Your task to perform on an android device: turn smart compose on in the gmail app Image 0: 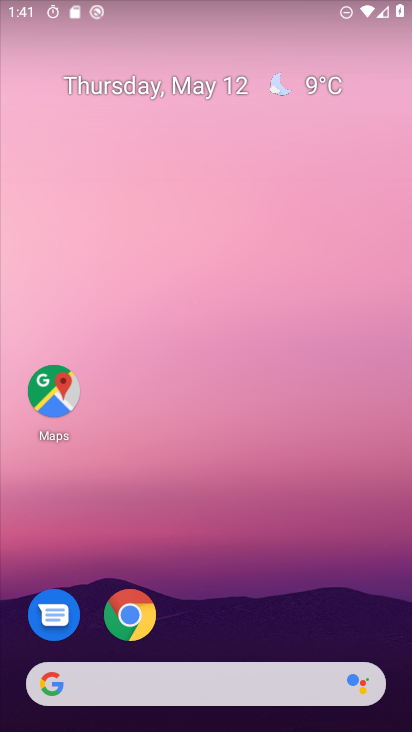
Step 0: drag from (244, 581) to (242, 163)
Your task to perform on an android device: turn smart compose on in the gmail app Image 1: 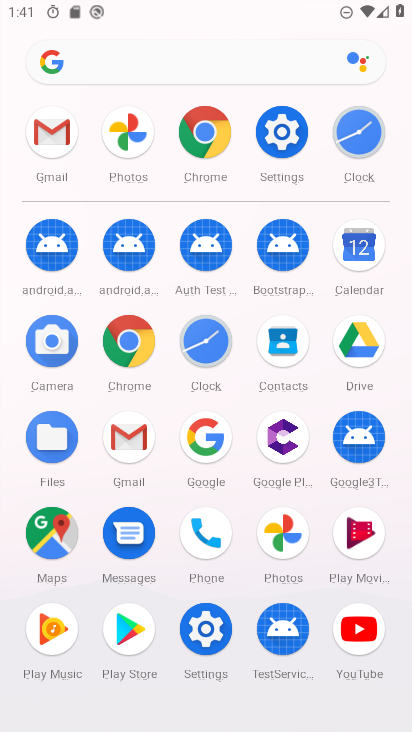
Step 1: click (61, 125)
Your task to perform on an android device: turn smart compose on in the gmail app Image 2: 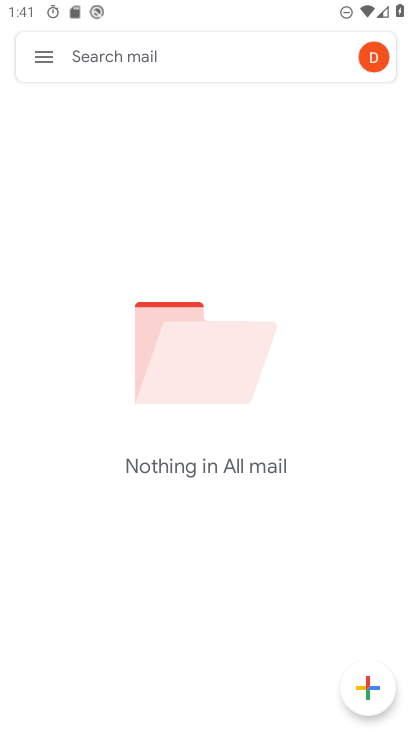
Step 2: click (43, 58)
Your task to perform on an android device: turn smart compose on in the gmail app Image 3: 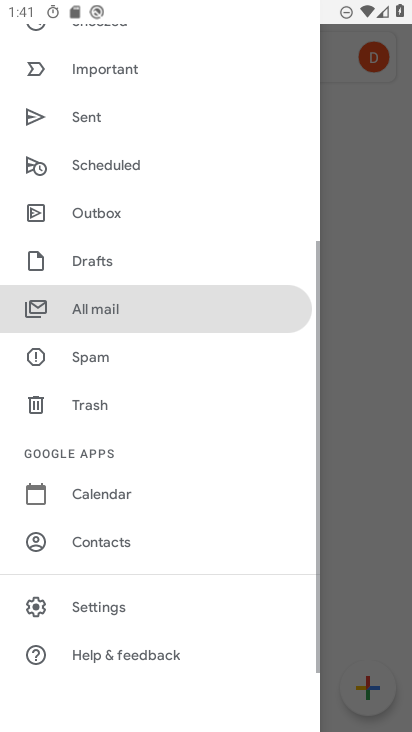
Step 3: drag from (158, 606) to (161, 317)
Your task to perform on an android device: turn smart compose on in the gmail app Image 4: 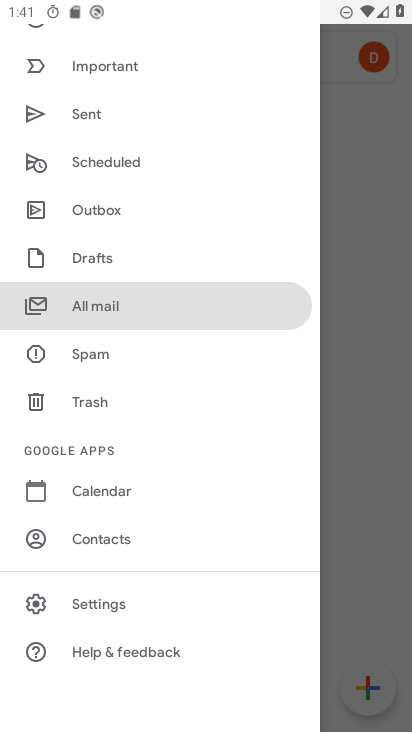
Step 4: click (92, 602)
Your task to perform on an android device: turn smart compose on in the gmail app Image 5: 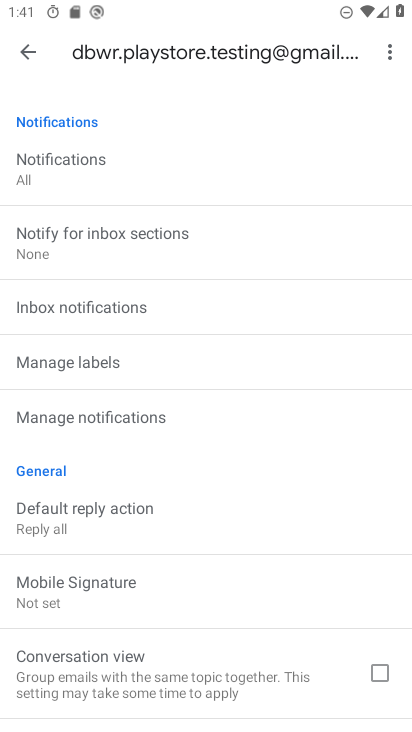
Step 5: task complete